Your task to perform on an android device: open app "Google Play Games" (install if not already installed) Image 0: 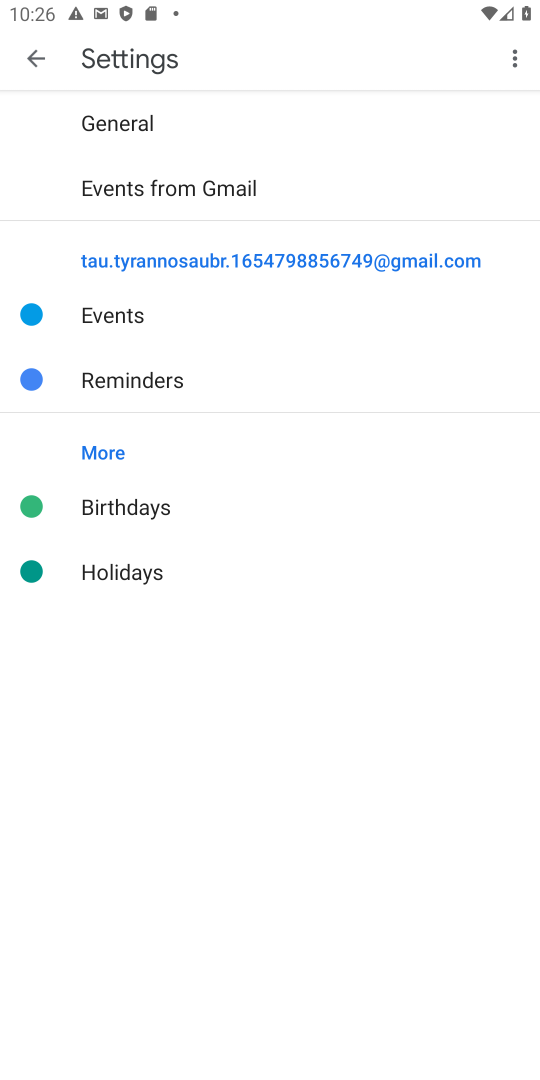
Step 0: press back button
Your task to perform on an android device: open app "Google Play Games" (install if not already installed) Image 1: 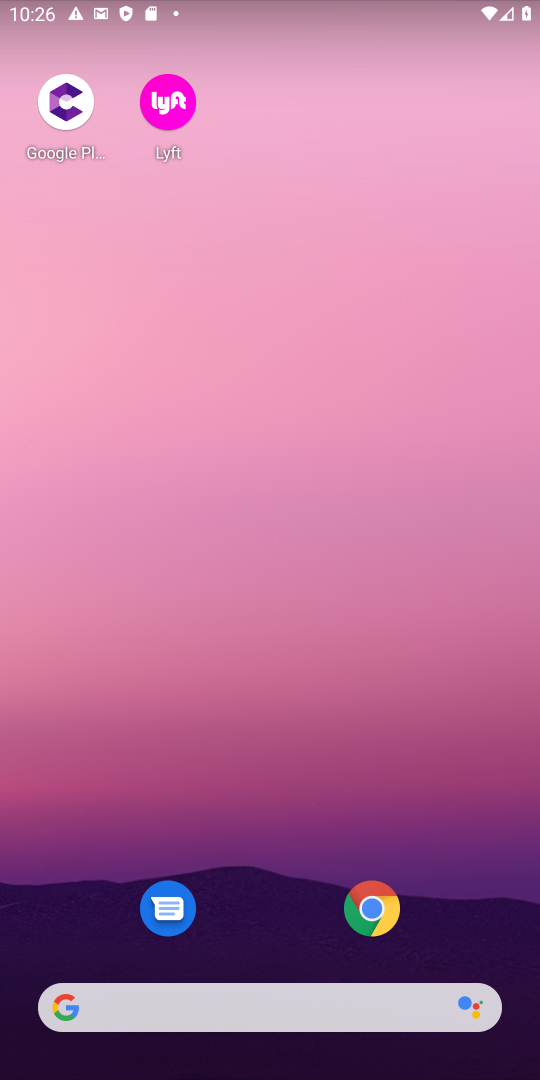
Step 1: drag from (279, 927) to (254, 38)
Your task to perform on an android device: open app "Google Play Games" (install if not already installed) Image 2: 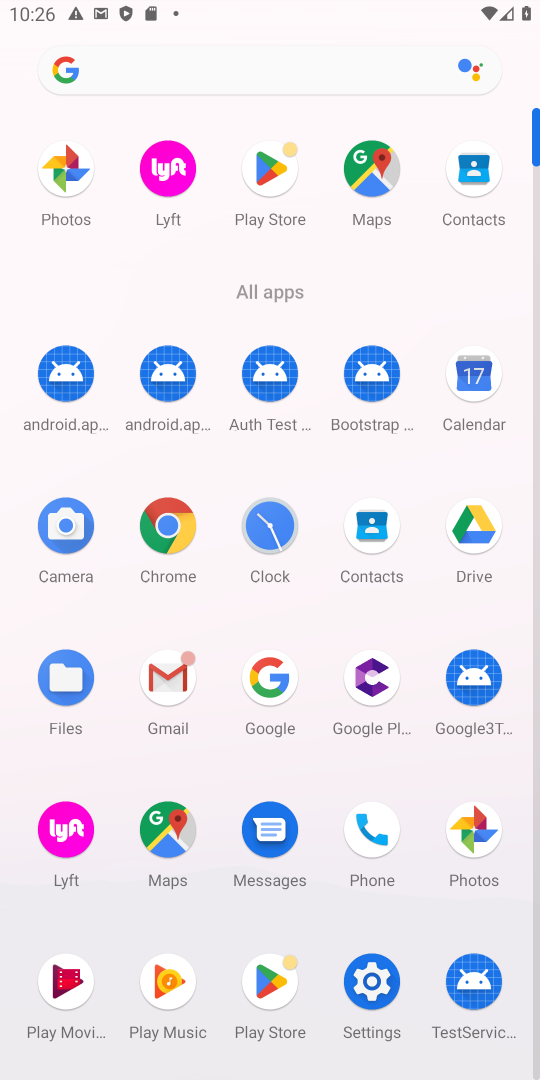
Step 2: click (264, 163)
Your task to perform on an android device: open app "Google Play Games" (install if not already installed) Image 3: 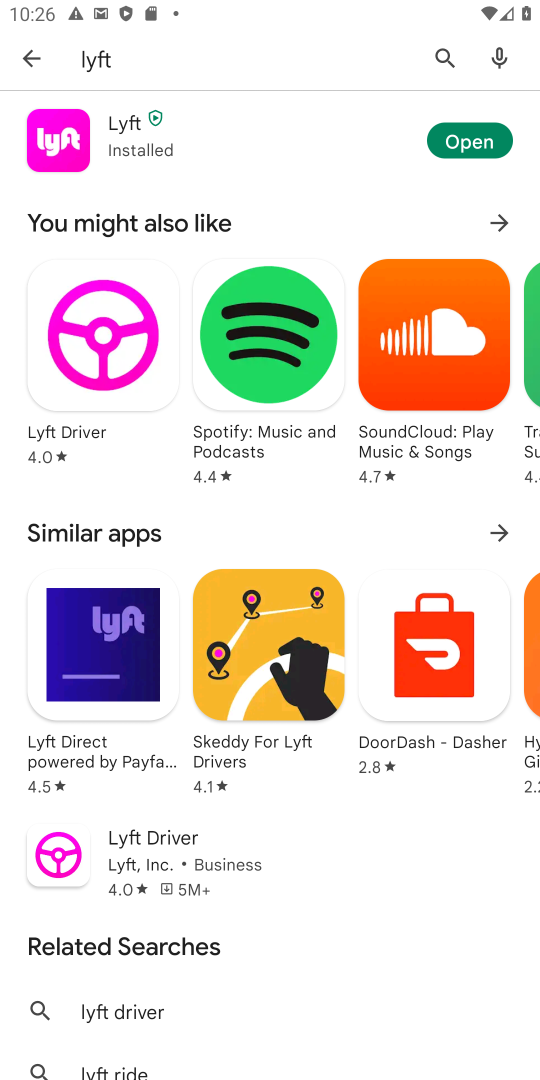
Step 3: click (448, 58)
Your task to perform on an android device: open app "Google Play Games" (install if not already installed) Image 4: 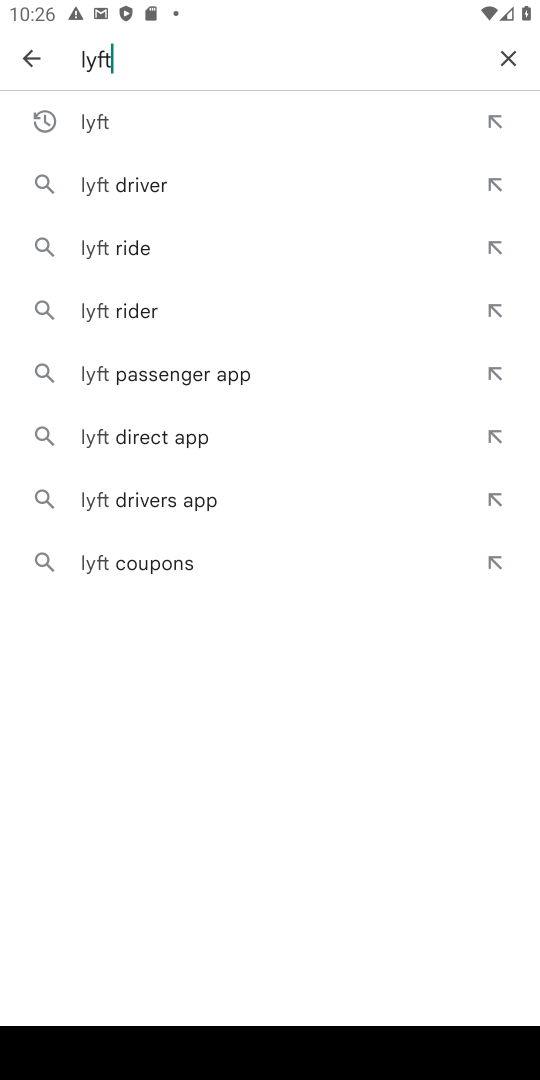
Step 4: click (506, 53)
Your task to perform on an android device: open app "Google Play Games" (install if not already installed) Image 5: 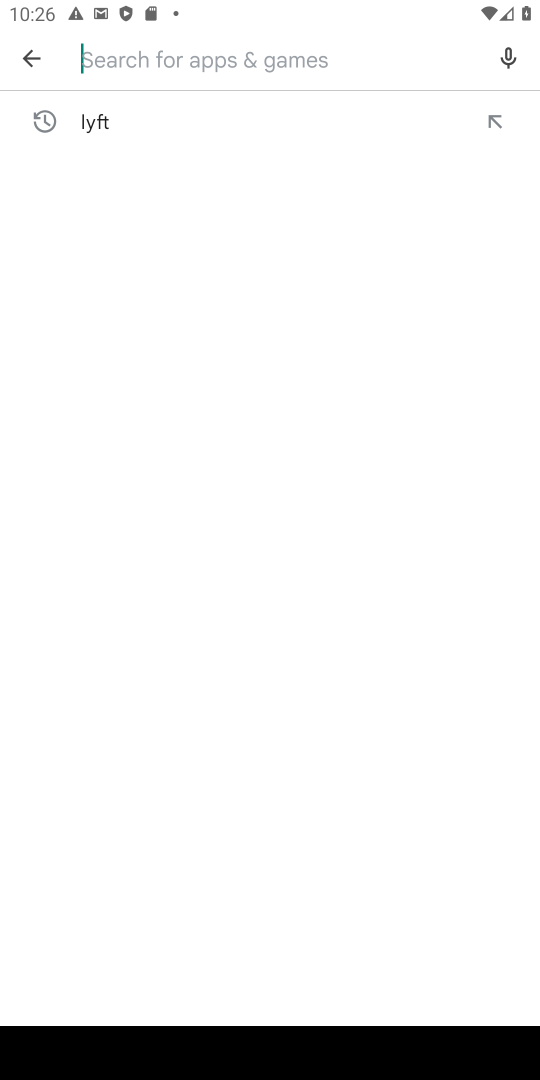
Step 5: click (241, 62)
Your task to perform on an android device: open app "Google Play Games" (install if not already installed) Image 6: 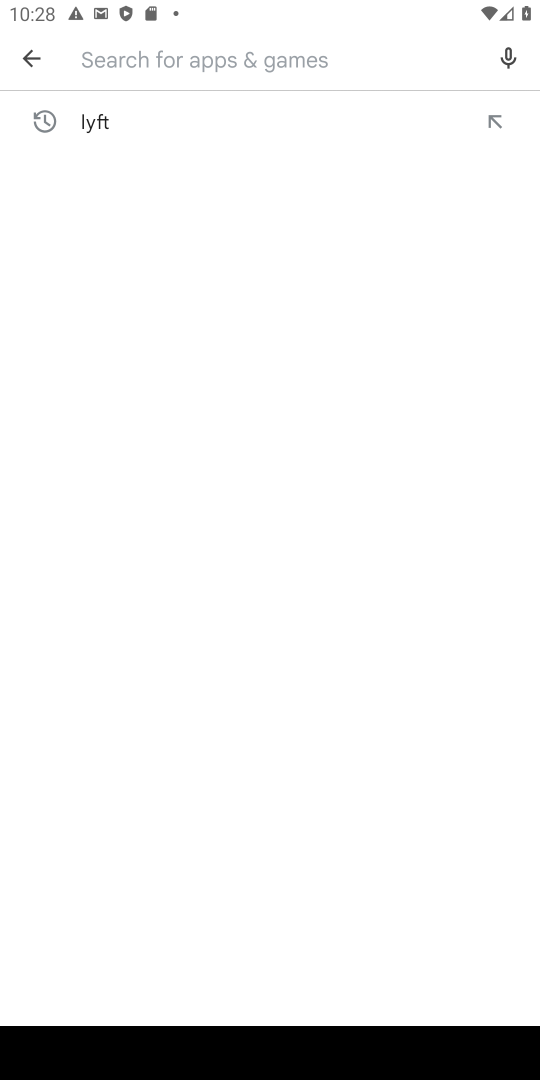
Step 6: click (177, 66)
Your task to perform on an android device: open app "Google Play Games" (install if not already installed) Image 7: 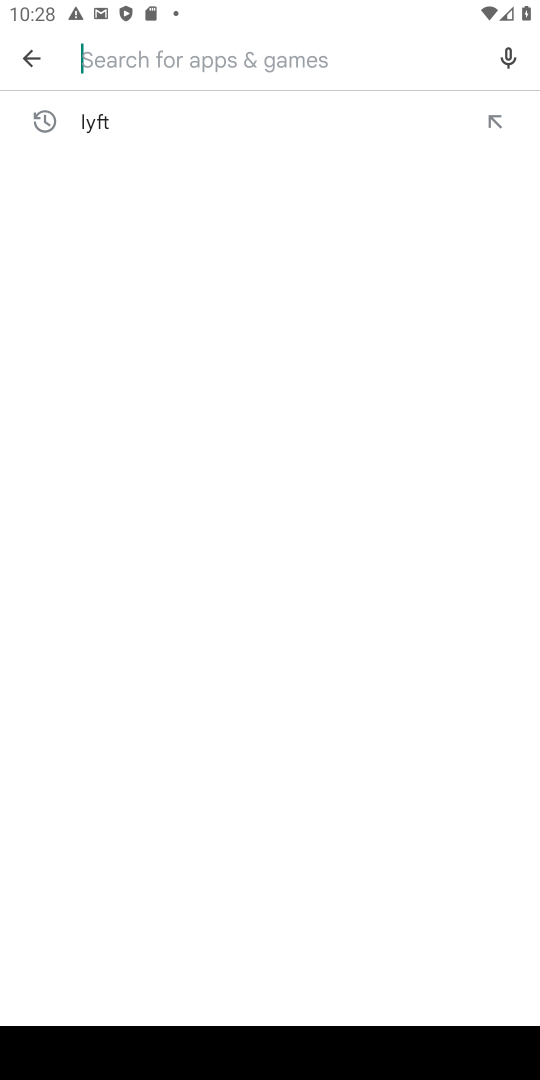
Step 7: type "google play games"
Your task to perform on an android device: open app "Google Play Games" (install if not already installed) Image 8: 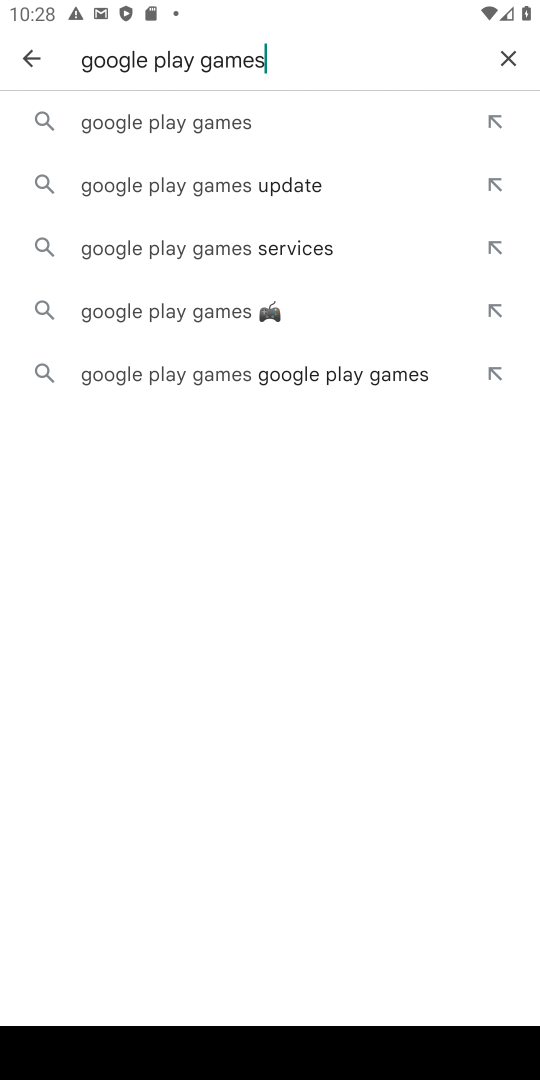
Step 8: click (275, 125)
Your task to perform on an android device: open app "Google Play Games" (install if not already installed) Image 9: 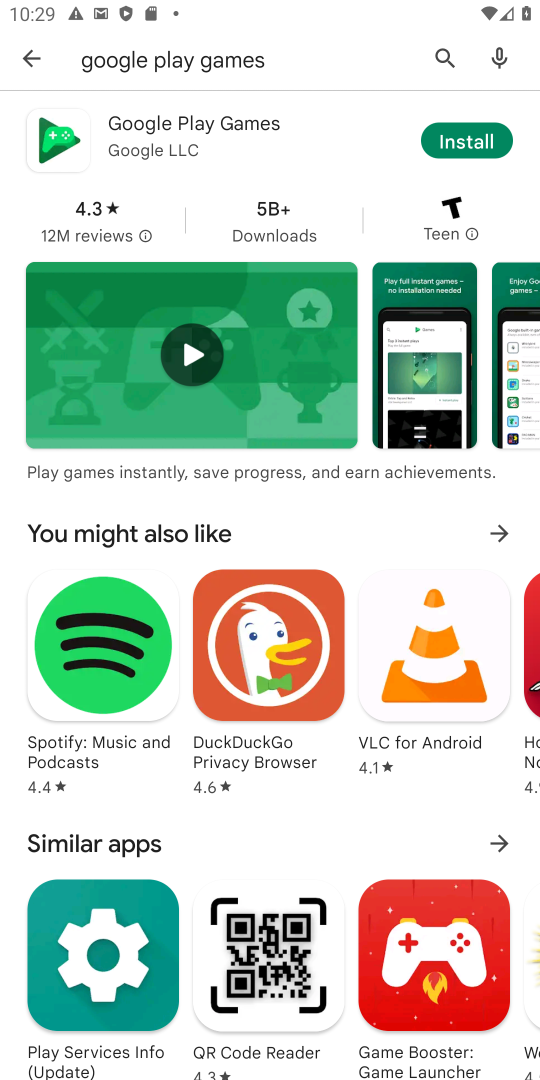
Step 9: click (460, 142)
Your task to perform on an android device: open app "Google Play Games" (install if not already installed) Image 10: 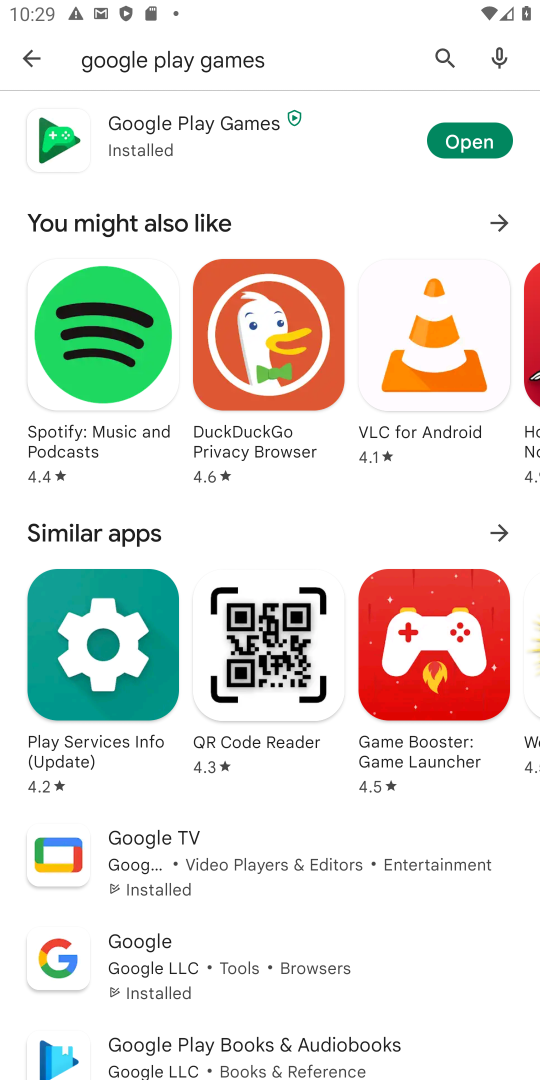
Step 10: click (481, 142)
Your task to perform on an android device: open app "Google Play Games" (install if not already installed) Image 11: 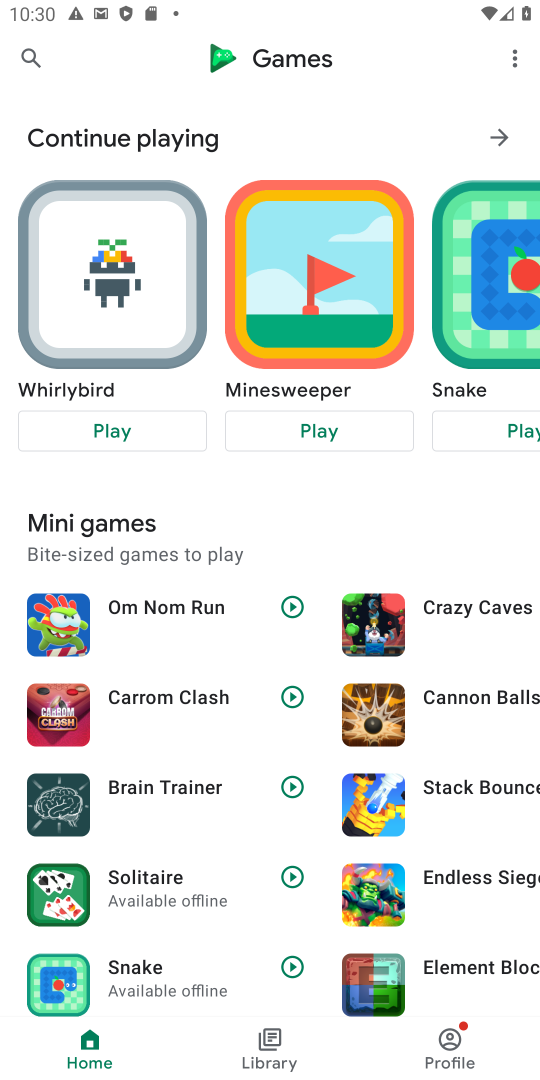
Step 11: task complete